Your task to perform on an android device: What's the weather going to be this weekend? Image 0: 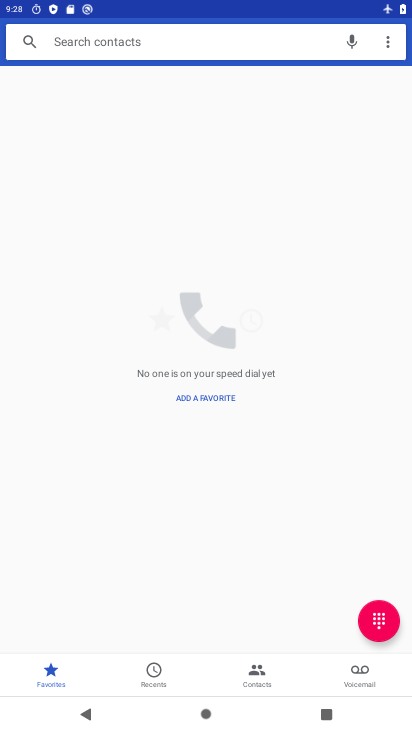
Step 0: press home button
Your task to perform on an android device: What's the weather going to be this weekend? Image 1: 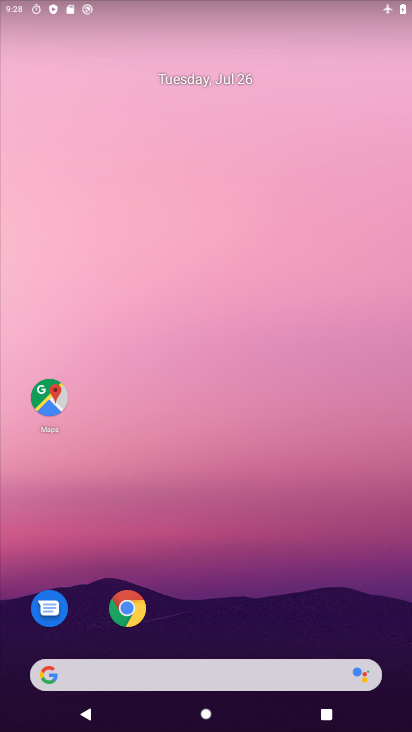
Step 1: drag from (221, 610) to (204, 161)
Your task to perform on an android device: What's the weather going to be this weekend? Image 2: 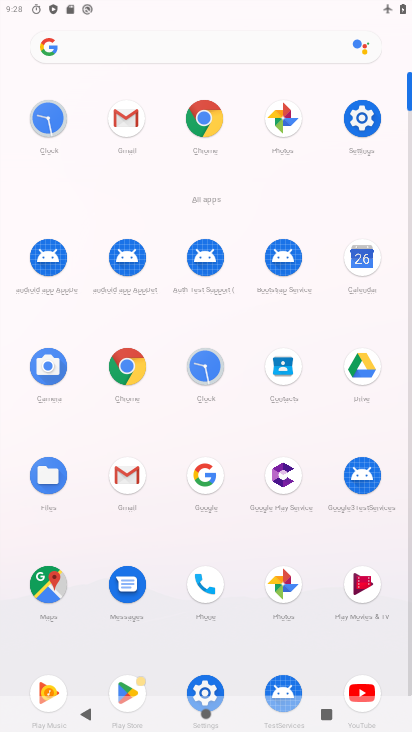
Step 2: click (213, 473)
Your task to perform on an android device: What's the weather going to be this weekend? Image 3: 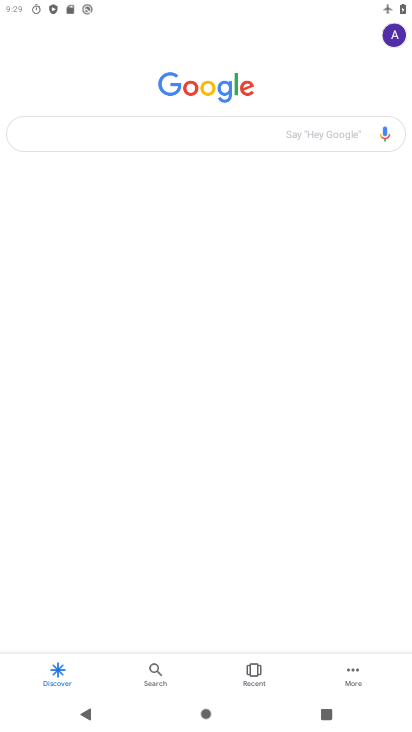
Step 3: click (123, 144)
Your task to perform on an android device: What's the weather going to be this weekend? Image 4: 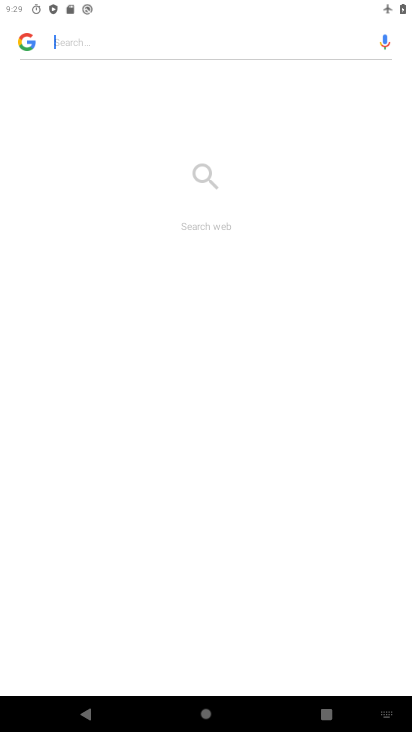
Step 4: type "weather "
Your task to perform on an android device: What's the weather going to be this weekend? Image 5: 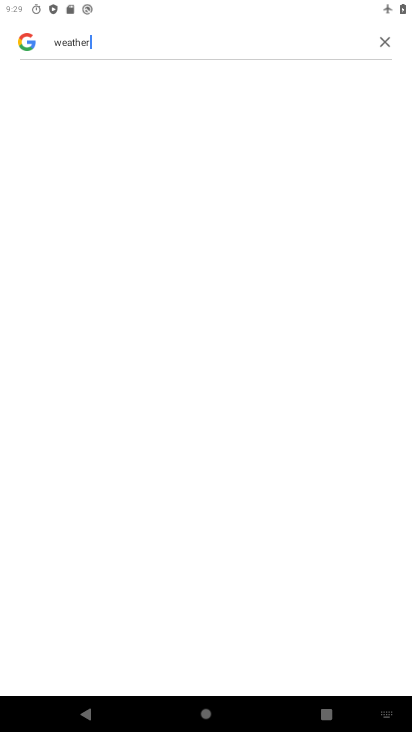
Step 5: type ""
Your task to perform on an android device: What's the weather going to be this weekend? Image 6: 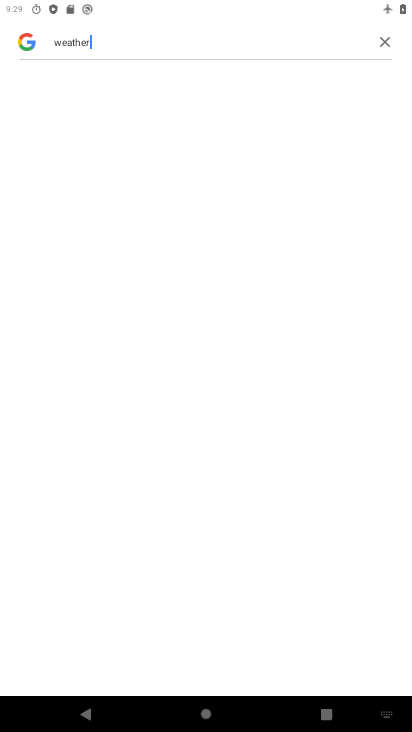
Step 6: task complete